Your task to perform on an android device: set the stopwatch Image 0: 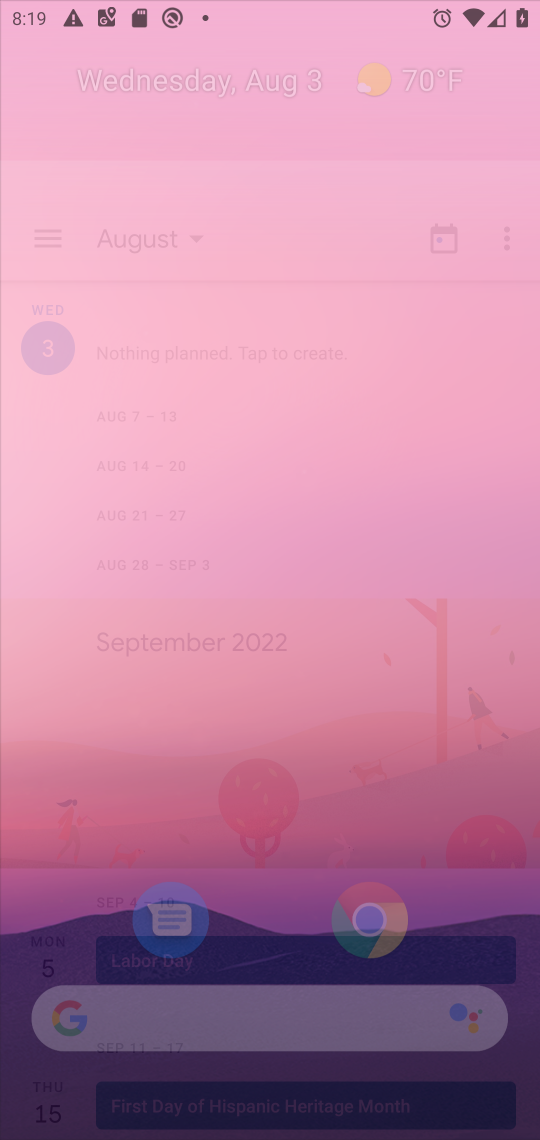
Step 0: press home button
Your task to perform on an android device: set the stopwatch Image 1: 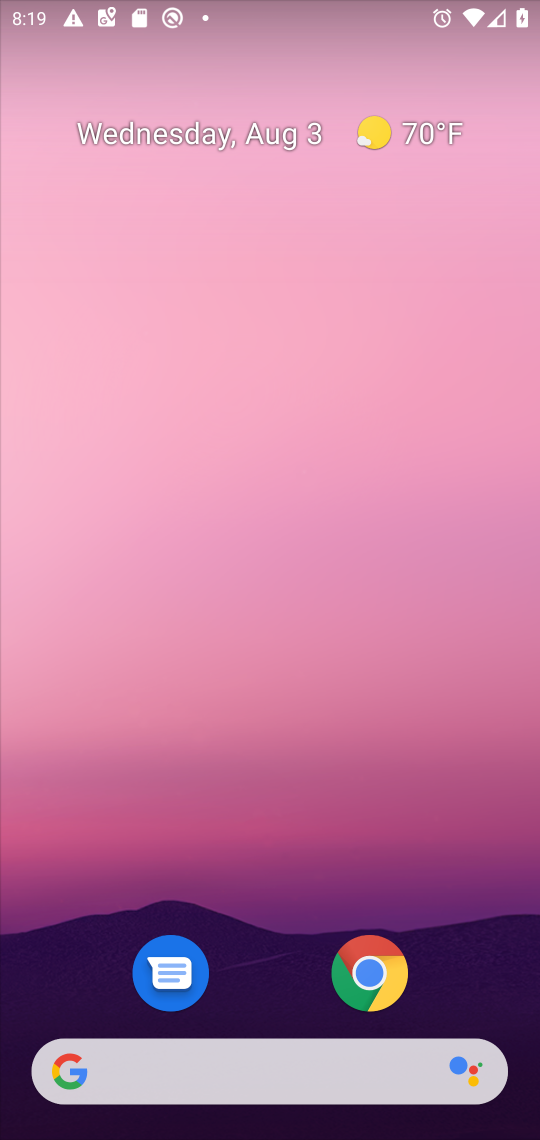
Step 1: press home button
Your task to perform on an android device: set the stopwatch Image 2: 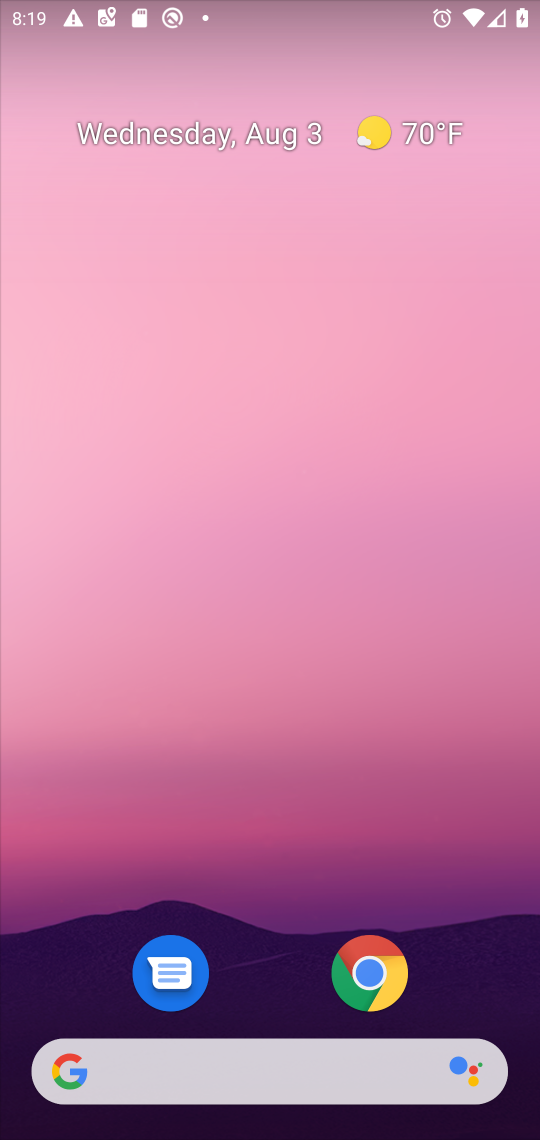
Step 2: drag from (275, 1003) to (402, 115)
Your task to perform on an android device: set the stopwatch Image 3: 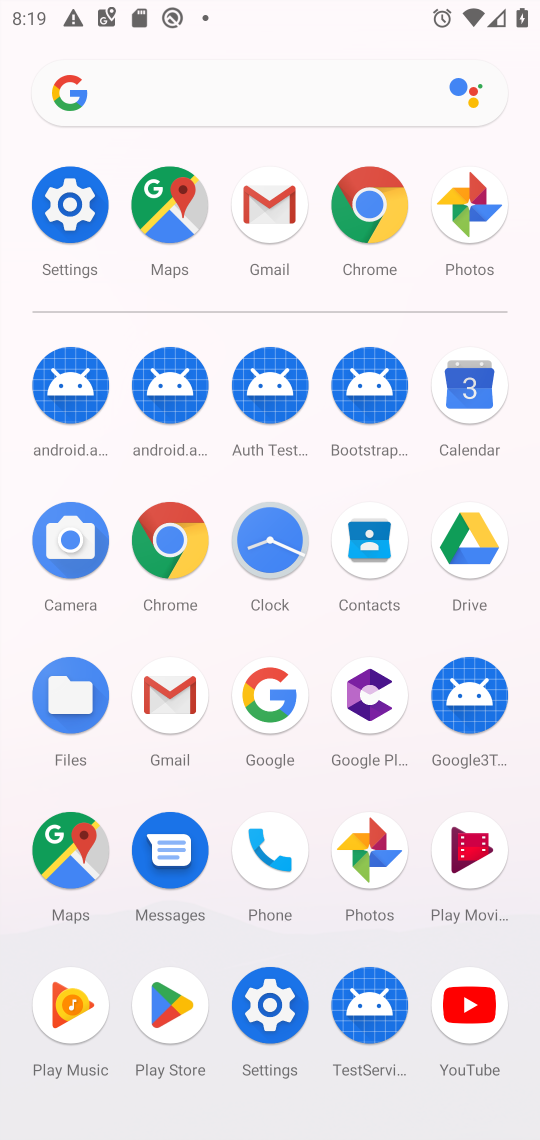
Step 3: click (268, 534)
Your task to perform on an android device: set the stopwatch Image 4: 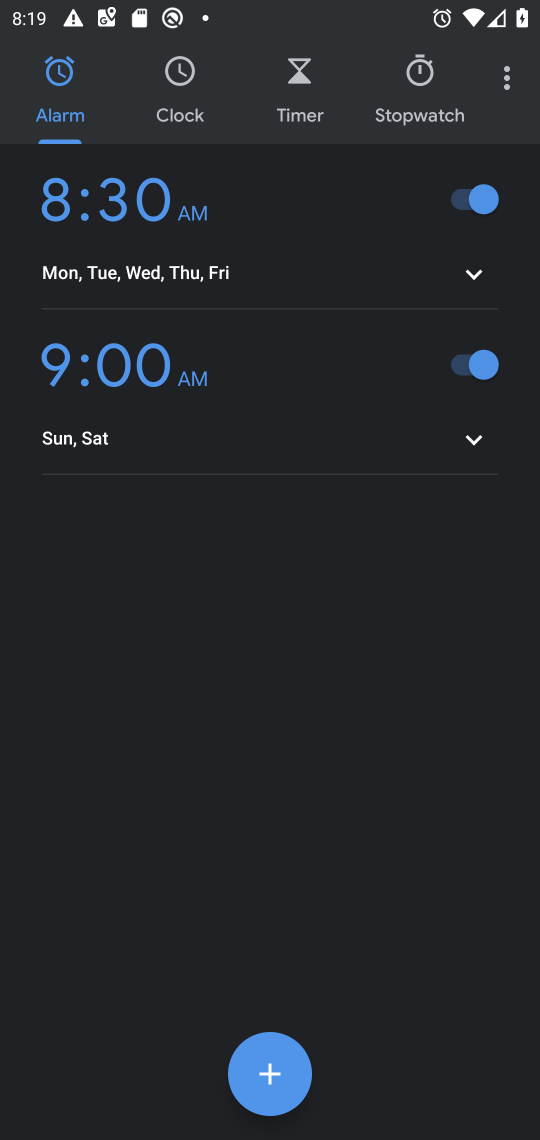
Step 4: click (421, 71)
Your task to perform on an android device: set the stopwatch Image 5: 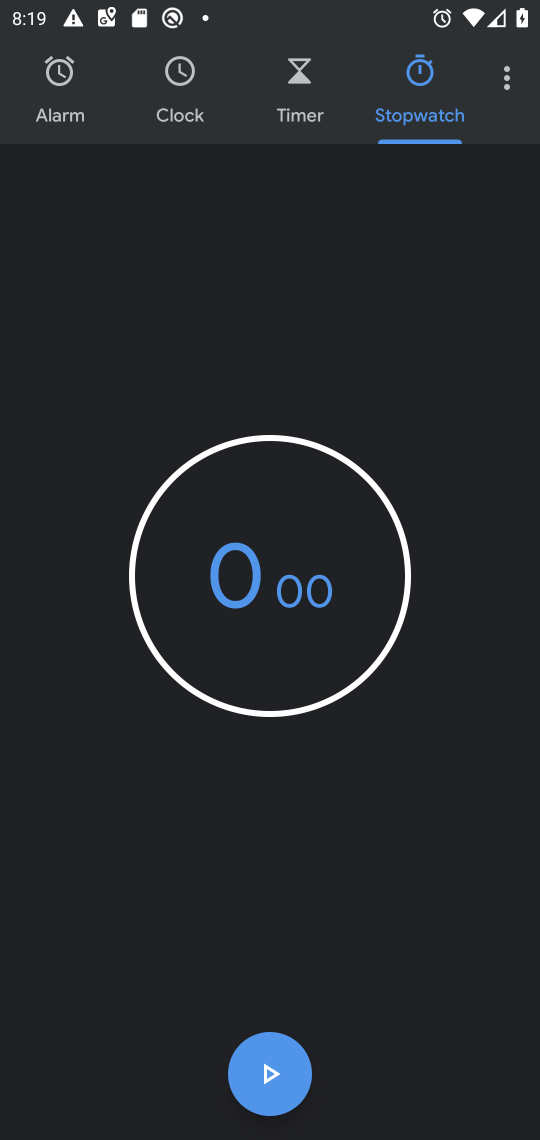
Step 5: click (272, 1072)
Your task to perform on an android device: set the stopwatch Image 6: 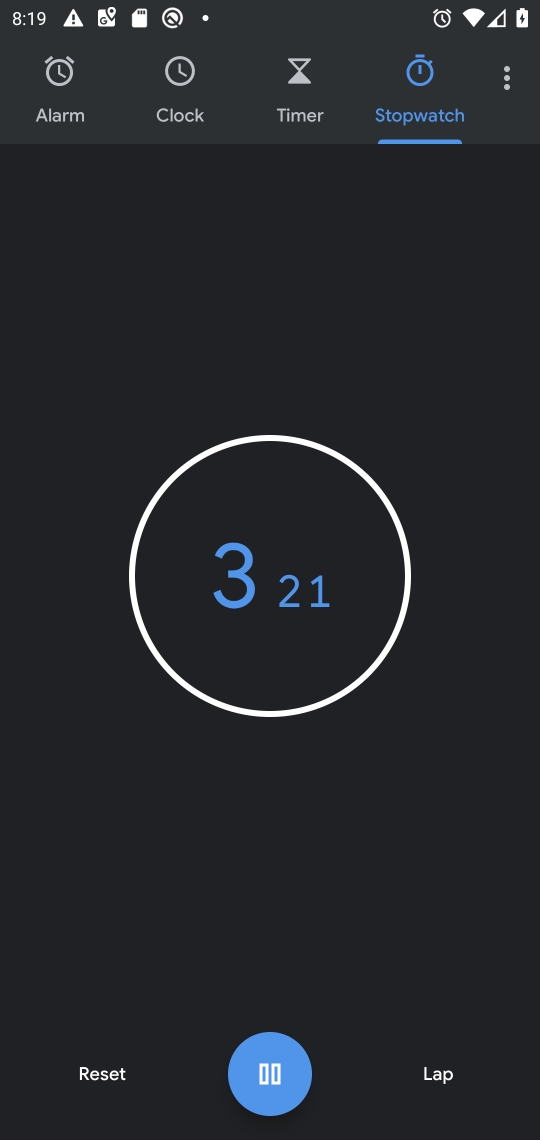
Step 6: task complete